Your task to perform on an android device: move a message to another label in the gmail app Image 0: 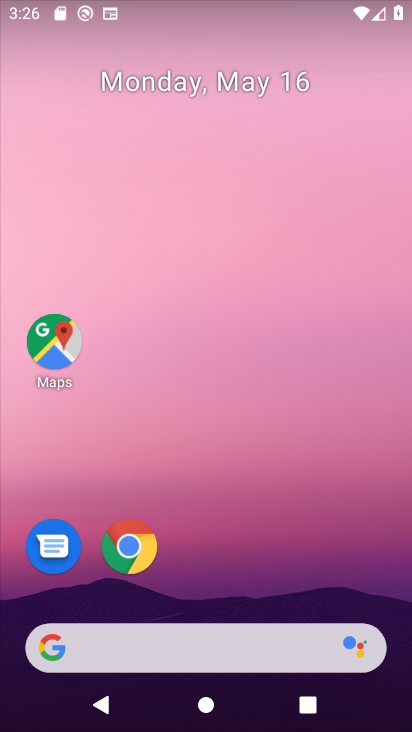
Step 0: drag from (355, 578) to (371, 123)
Your task to perform on an android device: move a message to another label in the gmail app Image 1: 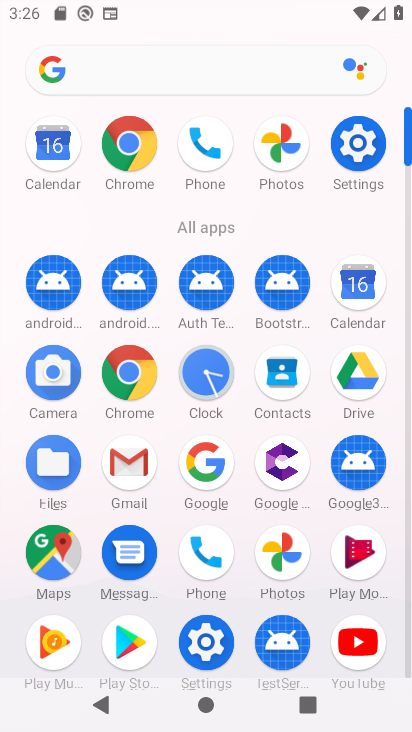
Step 1: click (127, 467)
Your task to perform on an android device: move a message to another label in the gmail app Image 2: 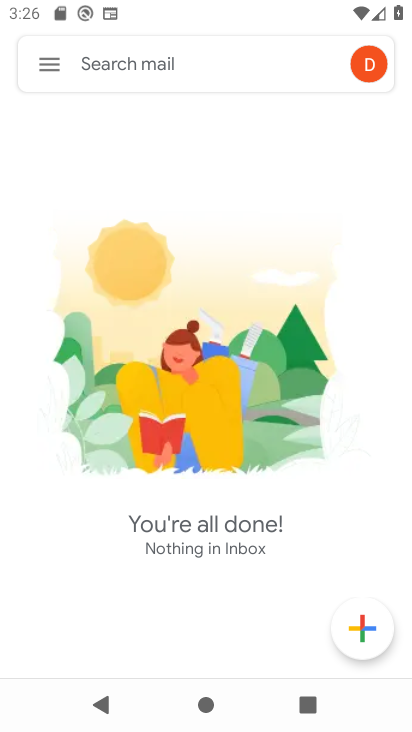
Step 2: click (47, 64)
Your task to perform on an android device: move a message to another label in the gmail app Image 3: 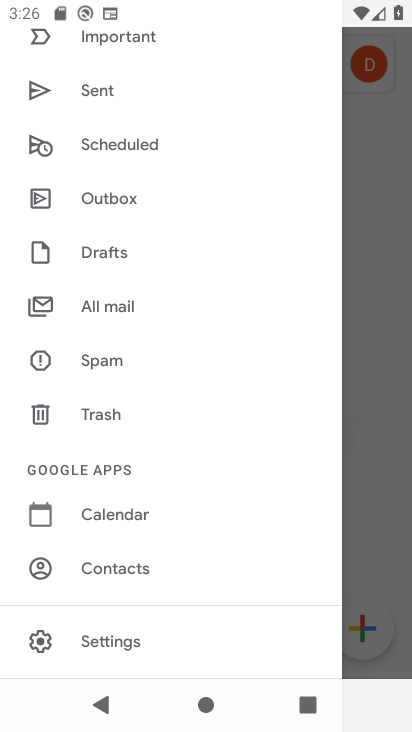
Step 3: drag from (241, 381) to (245, 471)
Your task to perform on an android device: move a message to another label in the gmail app Image 4: 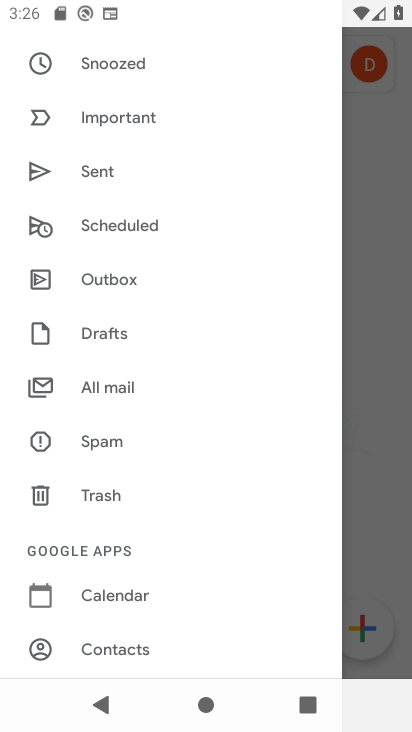
Step 4: drag from (245, 268) to (245, 399)
Your task to perform on an android device: move a message to another label in the gmail app Image 5: 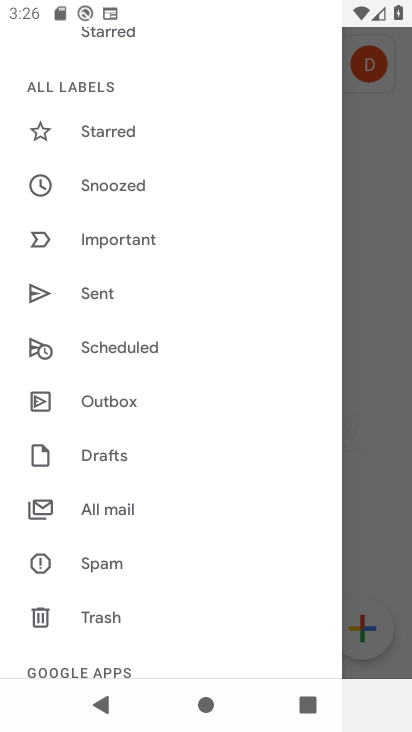
Step 5: drag from (250, 239) to (251, 379)
Your task to perform on an android device: move a message to another label in the gmail app Image 6: 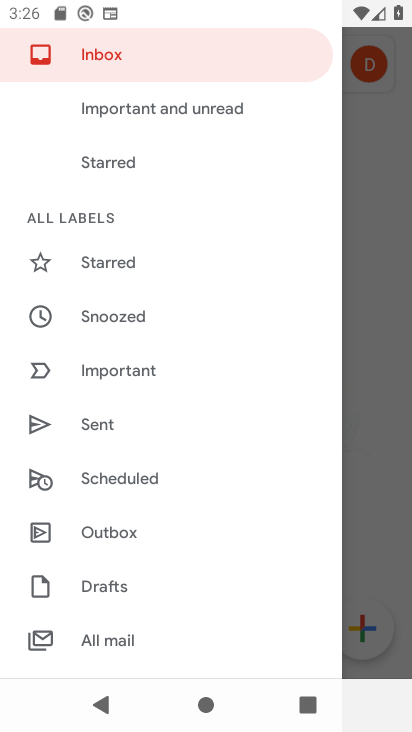
Step 6: drag from (249, 198) to (236, 353)
Your task to perform on an android device: move a message to another label in the gmail app Image 7: 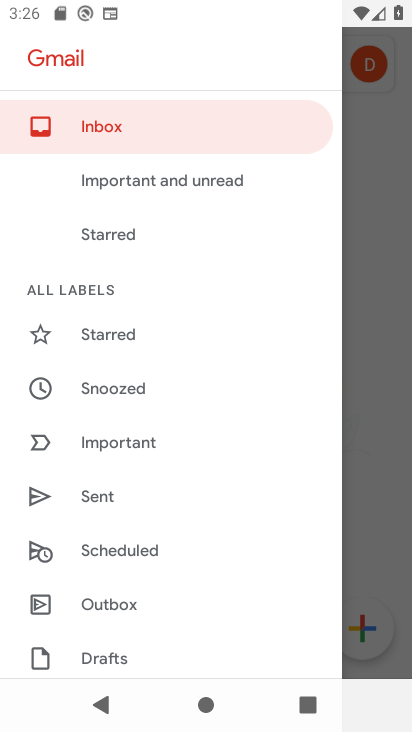
Step 7: click (147, 127)
Your task to perform on an android device: move a message to another label in the gmail app Image 8: 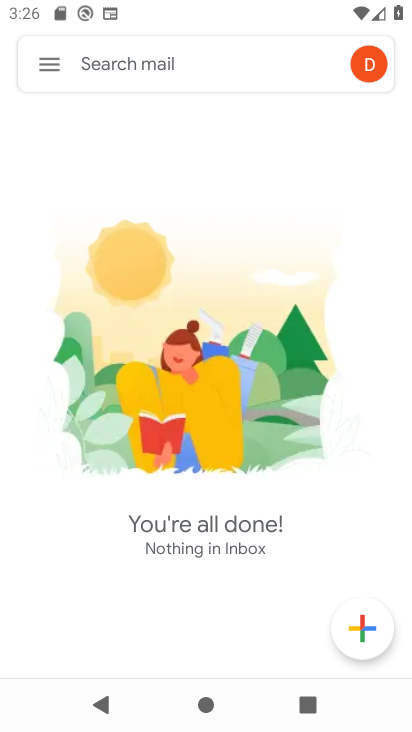
Step 8: task complete